Your task to perform on an android device: Do I have any events today? Image 0: 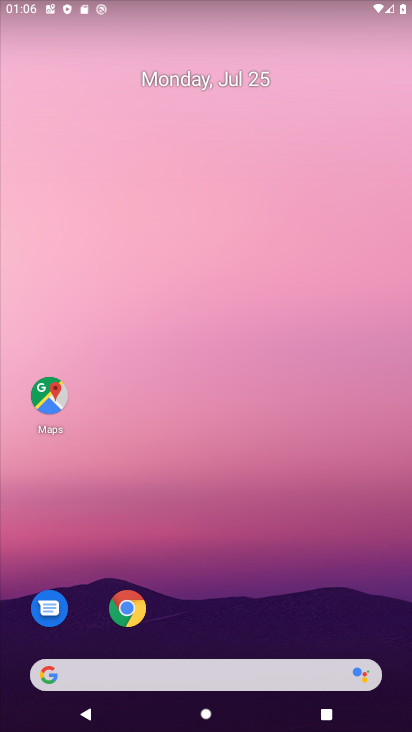
Step 0: drag from (192, 660) to (301, 191)
Your task to perform on an android device: Do I have any events today? Image 1: 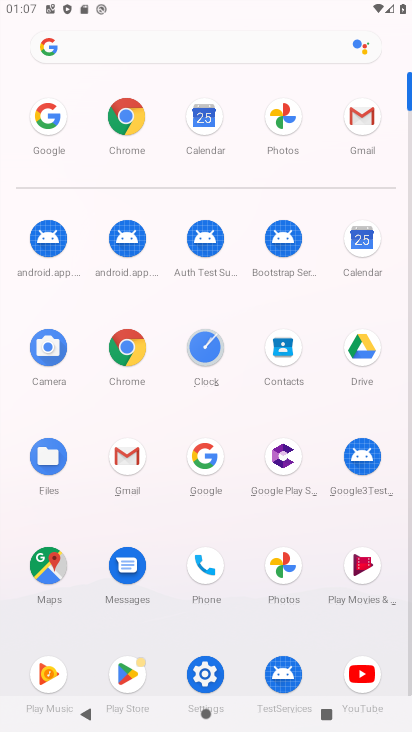
Step 1: click (354, 240)
Your task to perform on an android device: Do I have any events today? Image 2: 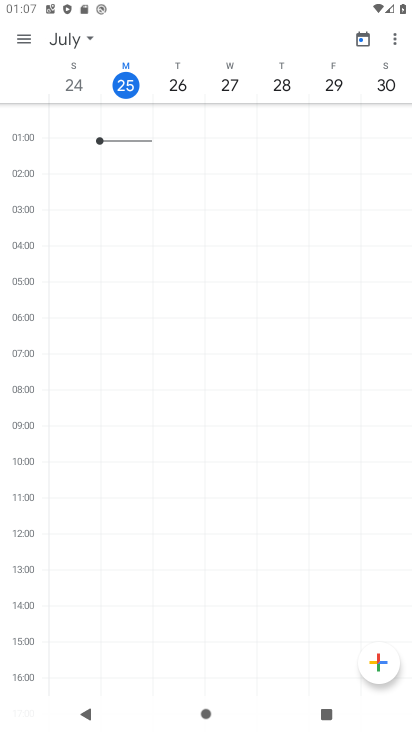
Step 2: click (130, 83)
Your task to perform on an android device: Do I have any events today? Image 3: 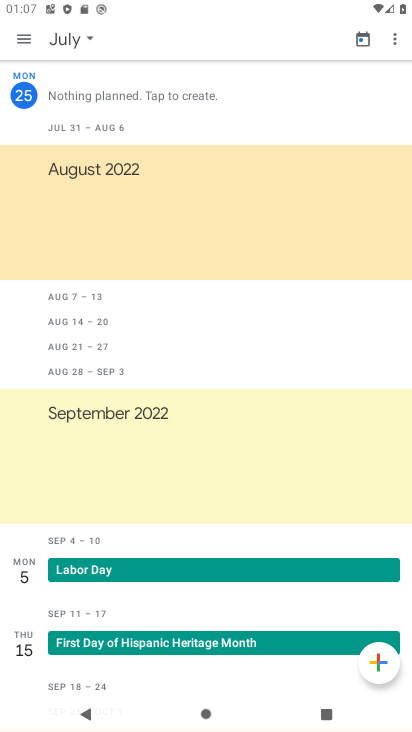
Step 3: task complete